Your task to perform on an android device: Show me popular videos on Youtube Image 0: 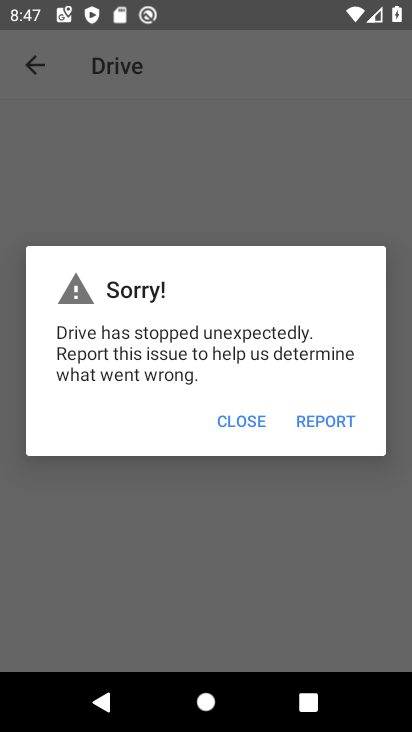
Step 0: press home button
Your task to perform on an android device: Show me popular videos on Youtube Image 1: 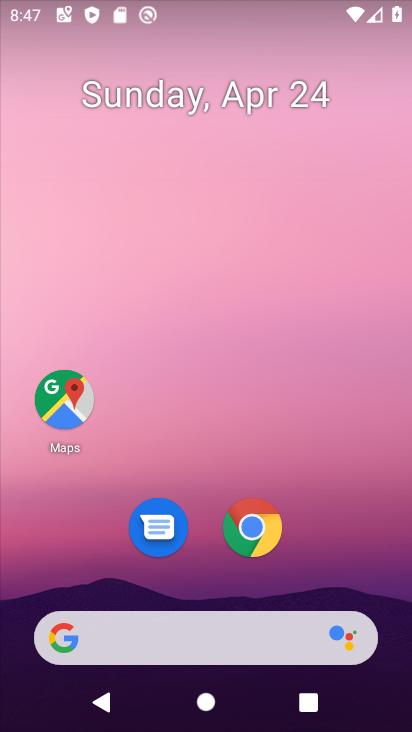
Step 1: drag from (347, 563) to (376, 41)
Your task to perform on an android device: Show me popular videos on Youtube Image 2: 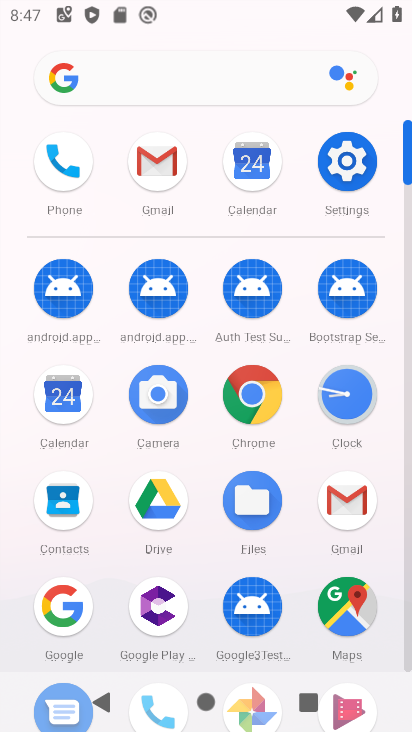
Step 2: drag from (408, 570) to (408, 518)
Your task to perform on an android device: Show me popular videos on Youtube Image 3: 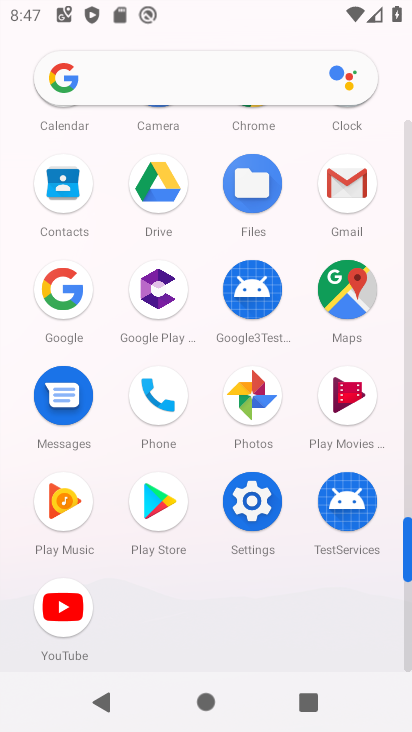
Step 3: click (42, 613)
Your task to perform on an android device: Show me popular videos on Youtube Image 4: 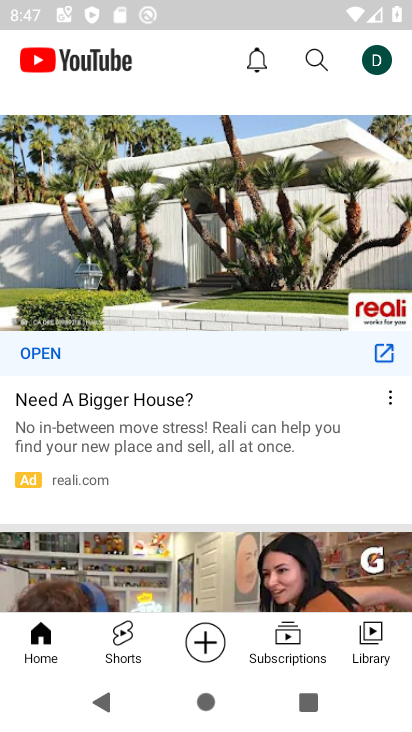
Step 4: task complete